Your task to perform on an android device: Open Android settings Image 0: 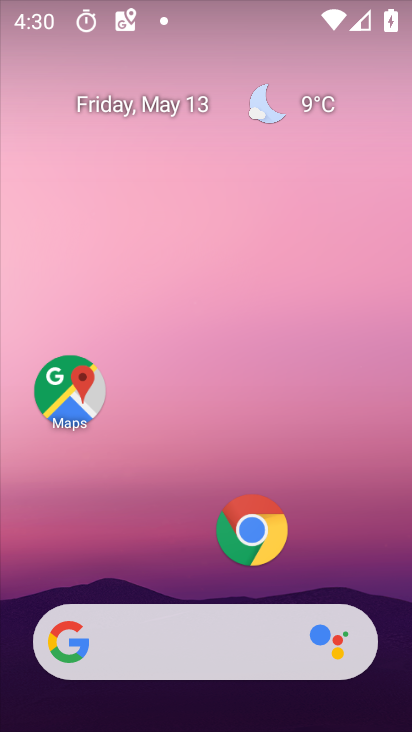
Step 0: drag from (207, 594) to (240, 58)
Your task to perform on an android device: Open Android settings Image 1: 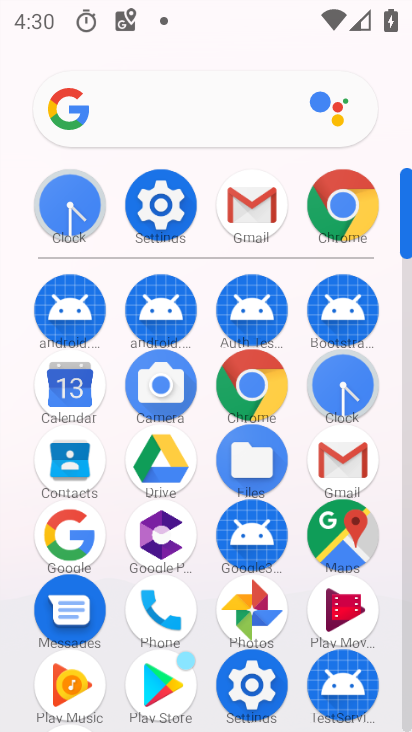
Step 1: click (254, 674)
Your task to perform on an android device: Open Android settings Image 2: 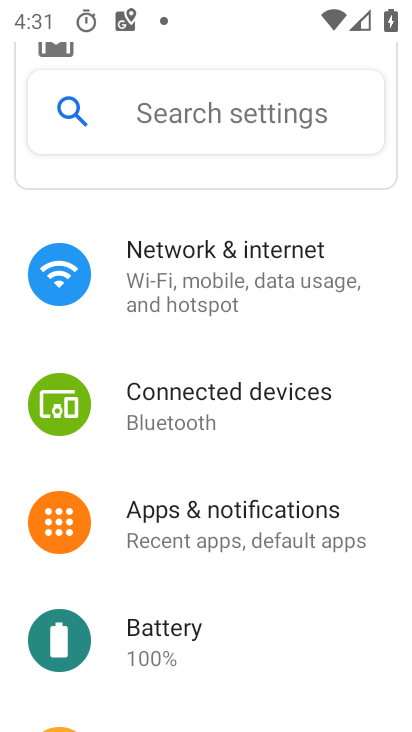
Step 2: drag from (216, 590) to (232, 278)
Your task to perform on an android device: Open Android settings Image 3: 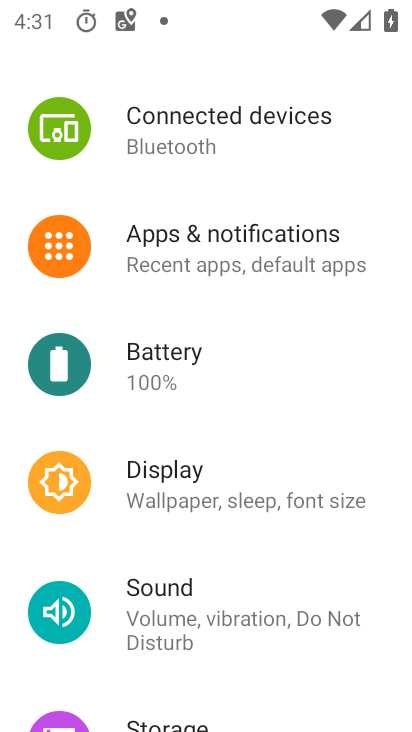
Step 3: drag from (224, 676) to (247, 184)
Your task to perform on an android device: Open Android settings Image 4: 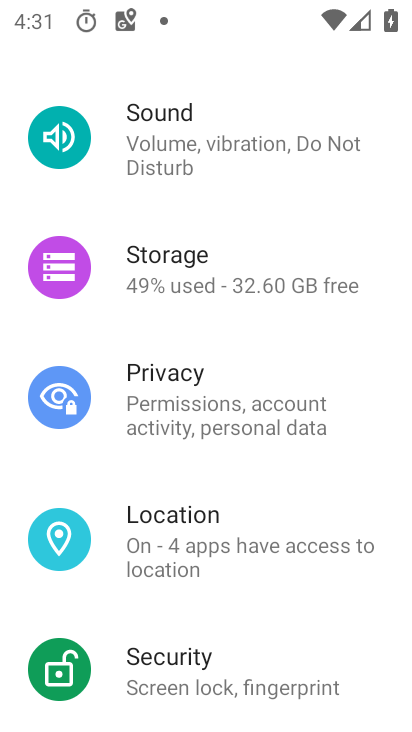
Step 4: drag from (234, 661) to (251, 192)
Your task to perform on an android device: Open Android settings Image 5: 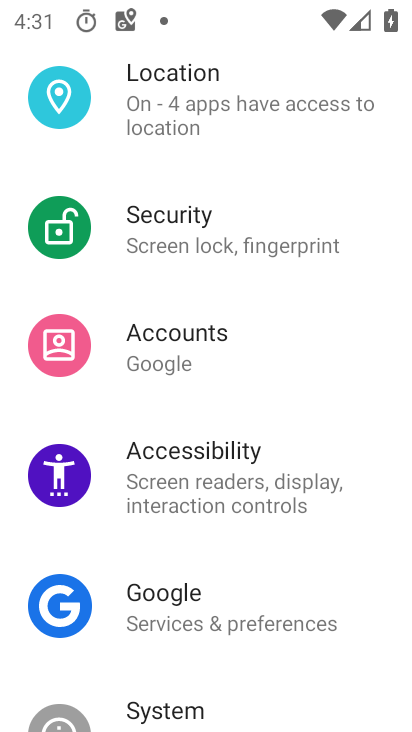
Step 5: drag from (217, 679) to (245, 380)
Your task to perform on an android device: Open Android settings Image 6: 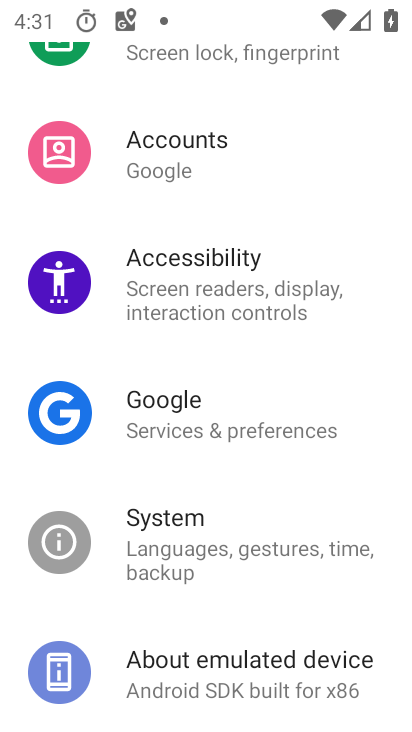
Step 6: click (205, 671)
Your task to perform on an android device: Open Android settings Image 7: 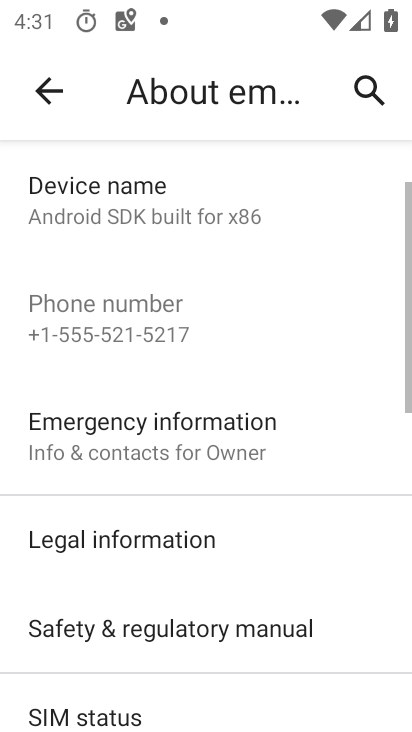
Step 7: drag from (187, 665) to (198, 194)
Your task to perform on an android device: Open Android settings Image 8: 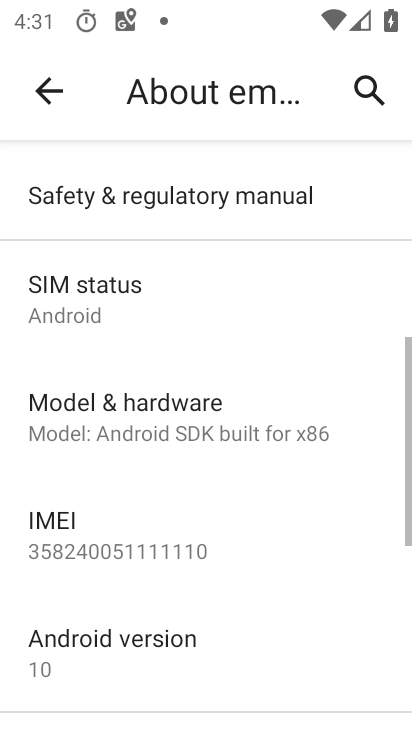
Step 8: click (130, 646)
Your task to perform on an android device: Open Android settings Image 9: 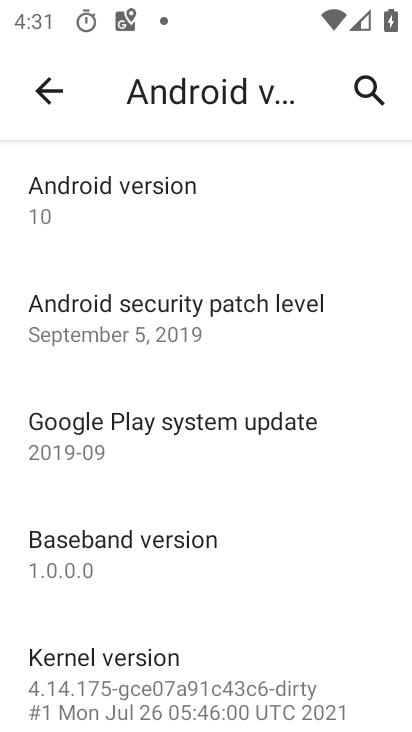
Step 9: task complete